Your task to perform on an android device: add a contact in the contacts app Image 0: 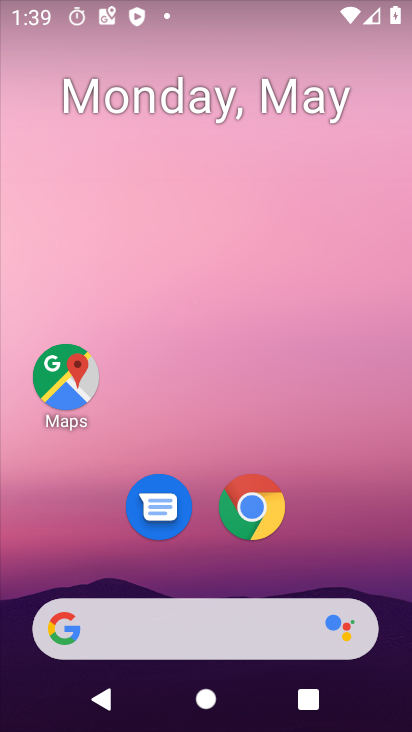
Step 0: drag from (312, 562) to (322, 196)
Your task to perform on an android device: add a contact in the contacts app Image 1: 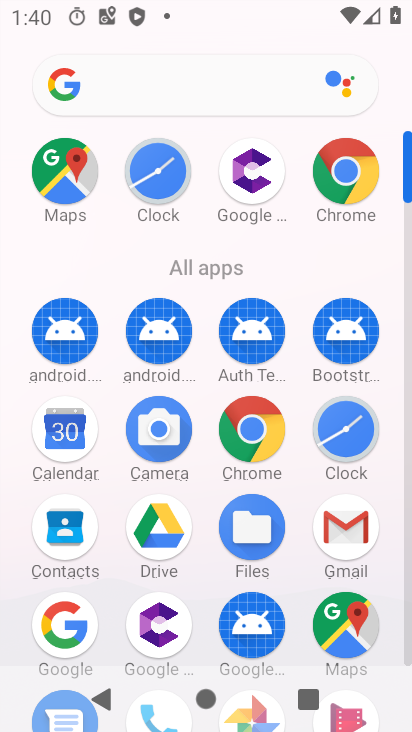
Step 1: click (42, 535)
Your task to perform on an android device: add a contact in the contacts app Image 2: 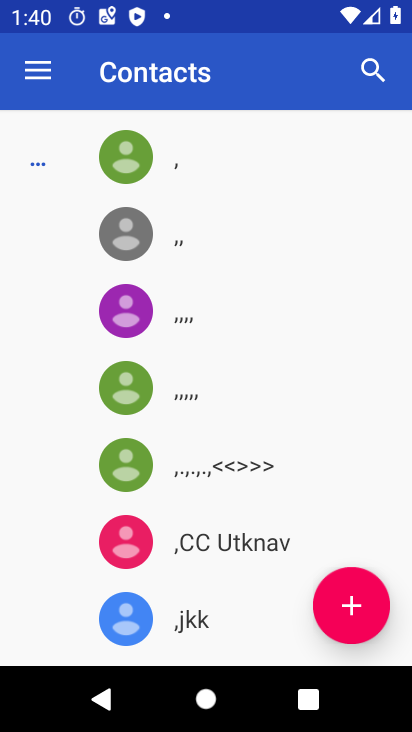
Step 2: click (344, 592)
Your task to perform on an android device: add a contact in the contacts app Image 3: 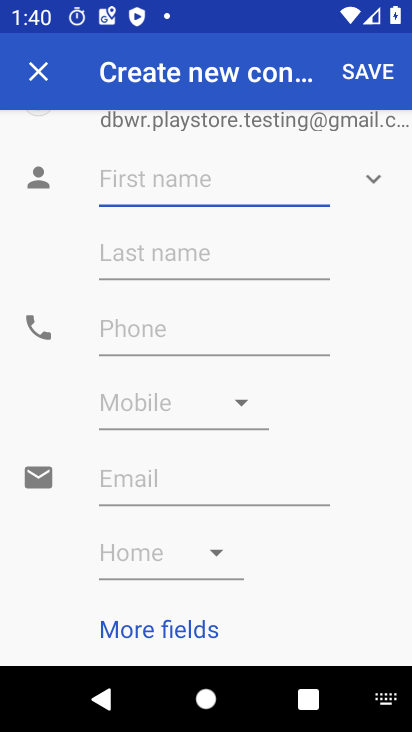
Step 3: click (210, 167)
Your task to perform on an android device: add a contact in the contacts app Image 4: 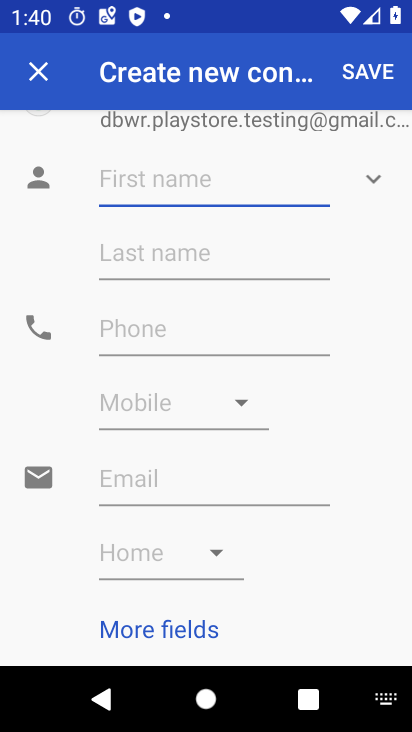
Step 4: type "please"
Your task to perform on an android device: add a contact in the contacts app Image 5: 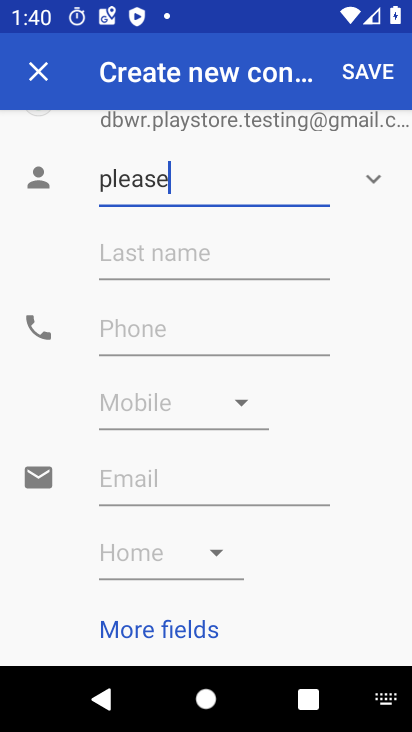
Step 5: click (145, 339)
Your task to perform on an android device: add a contact in the contacts app Image 6: 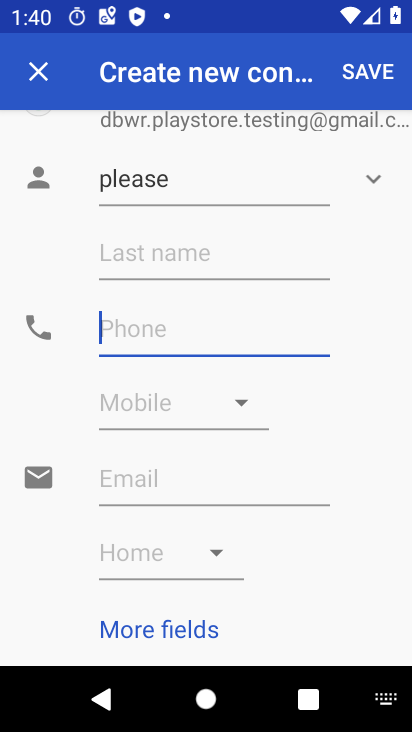
Step 6: type "023940939032"
Your task to perform on an android device: add a contact in the contacts app Image 7: 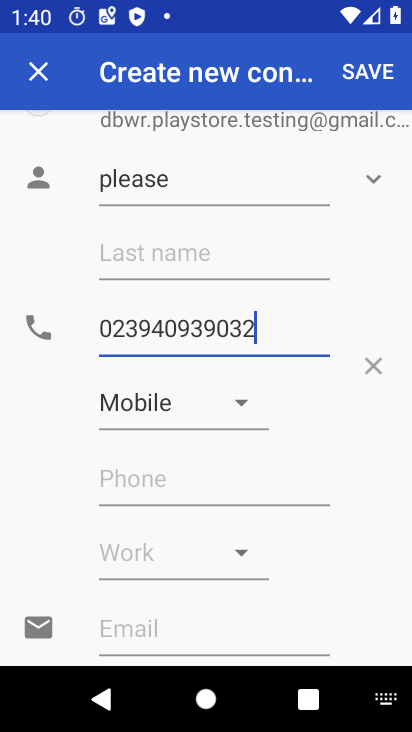
Step 7: click (369, 59)
Your task to perform on an android device: add a contact in the contacts app Image 8: 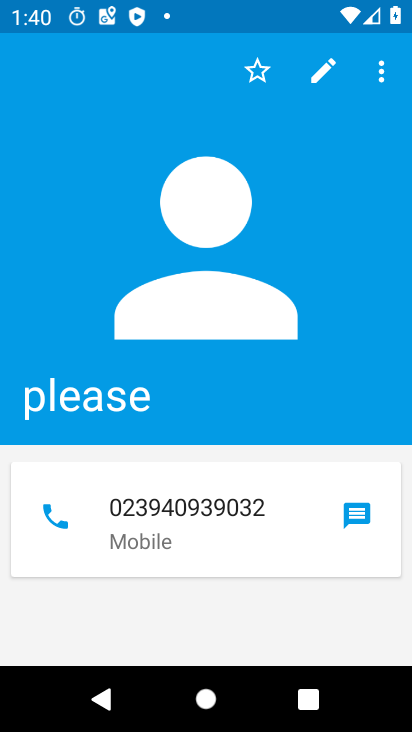
Step 8: task complete